Your task to perform on an android device: turn off priority inbox in the gmail app Image 0: 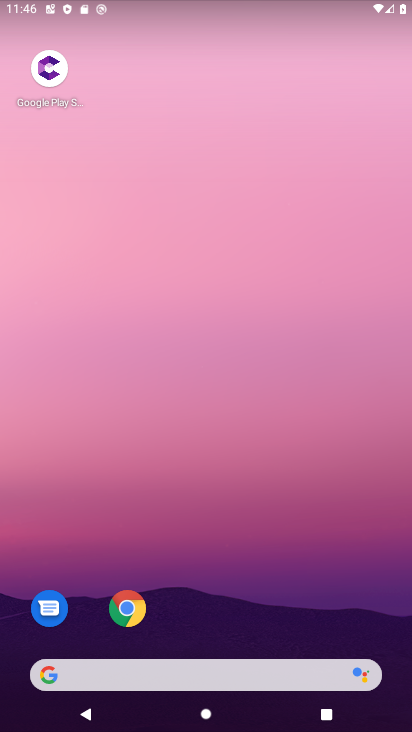
Step 0: drag from (184, 631) to (173, 229)
Your task to perform on an android device: turn off priority inbox in the gmail app Image 1: 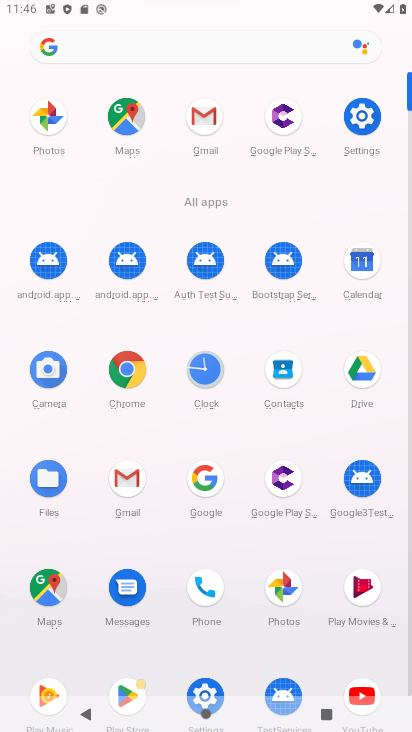
Step 1: click (204, 128)
Your task to perform on an android device: turn off priority inbox in the gmail app Image 2: 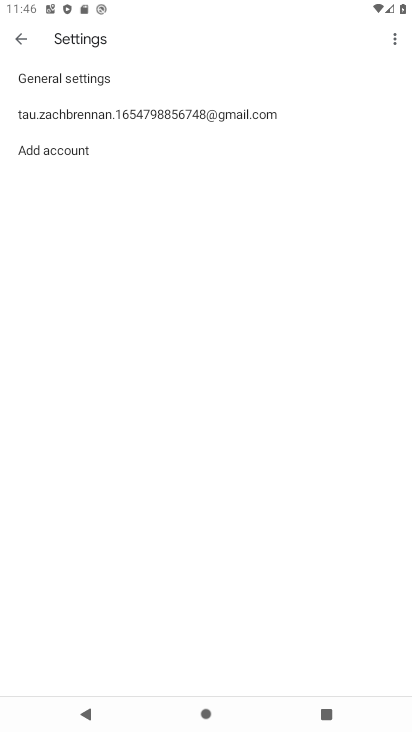
Step 2: click (121, 112)
Your task to perform on an android device: turn off priority inbox in the gmail app Image 3: 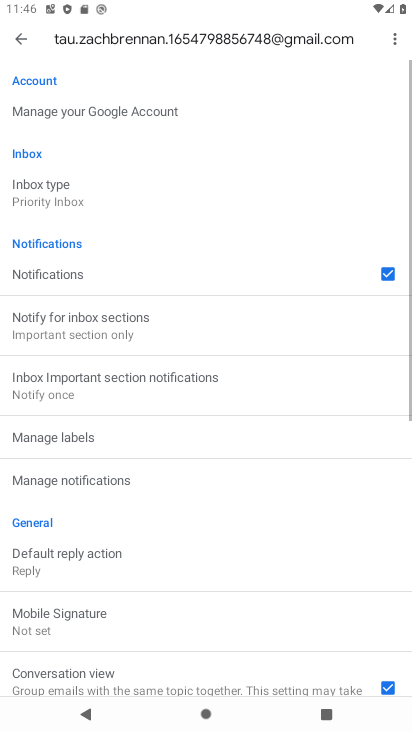
Step 3: click (34, 194)
Your task to perform on an android device: turn off priority inbox in the gmail app Image 4: 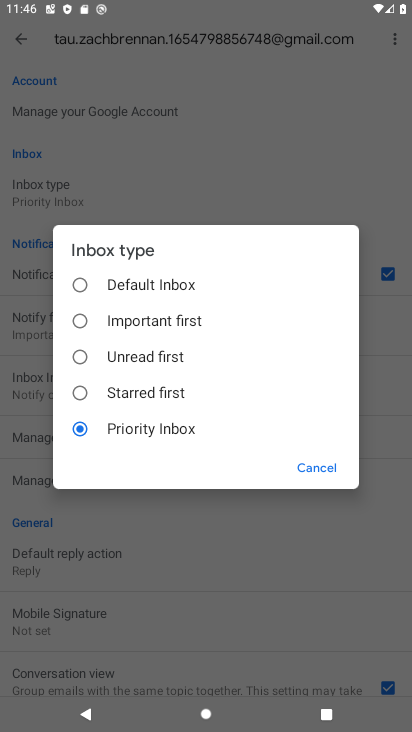
Step 4: click (118, 280)
Your task to perform on an android device: turn off priority inbox in the gmail app Image 5: 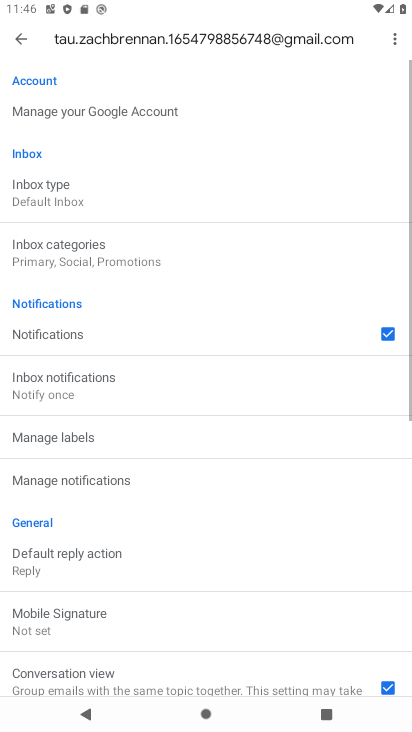
Step 5: task complete